Your task to perform on an android device: Search for pizza restaurants on Maps Image 0: 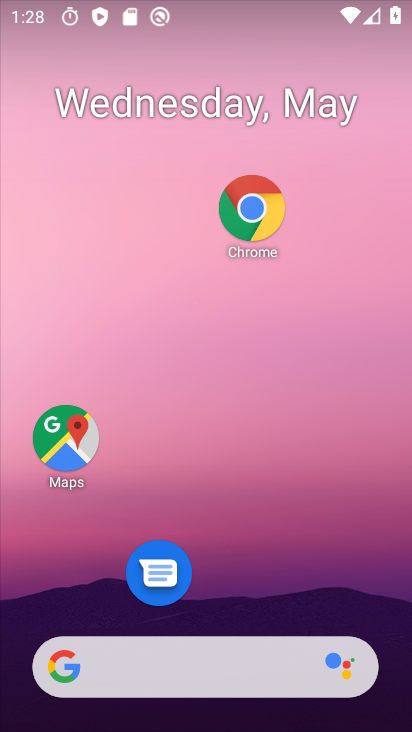
Step 0: click (72, 449)
Your task to perform on an android device: Search for pizza restaurants on Maps Image 1: 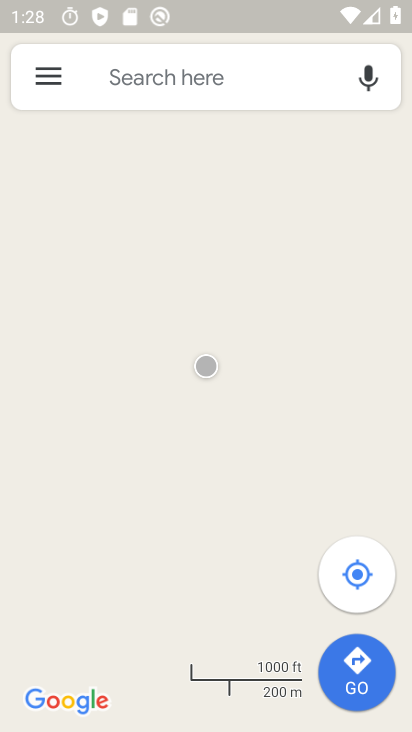
Step 1: click (225, 89)
Your task to perform on an android device: Search for pizza restaurants on Maps Image 2: 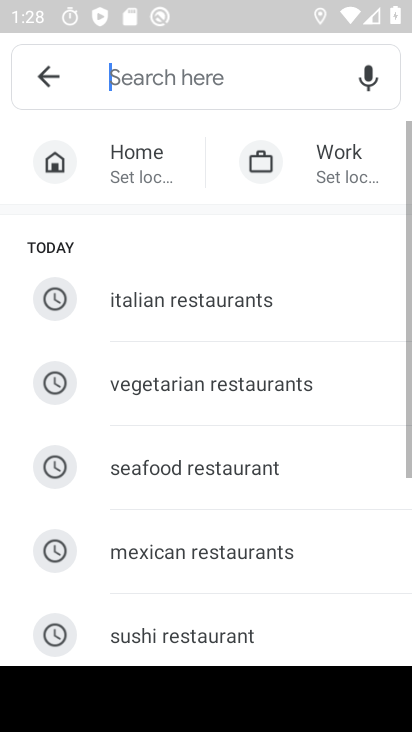
Step 2: type "pizza restaurant"
Your task to perform on an android device: Search for pizza restaurants on Maps Image 3: 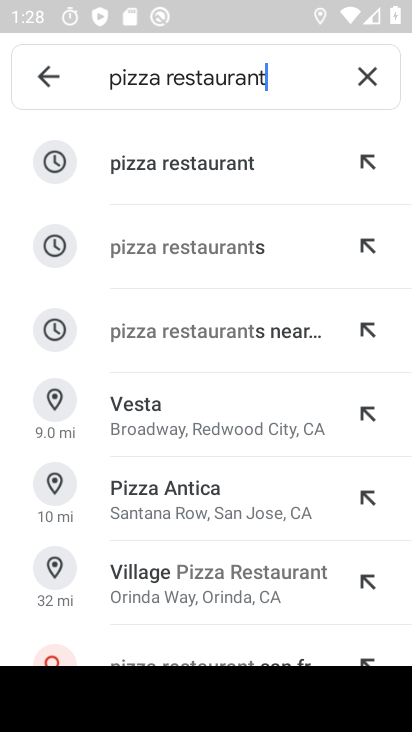
Step 3: click (51, 167)
Your task to perform on an android device: Search for pizza restaurants on Maps Image 4: 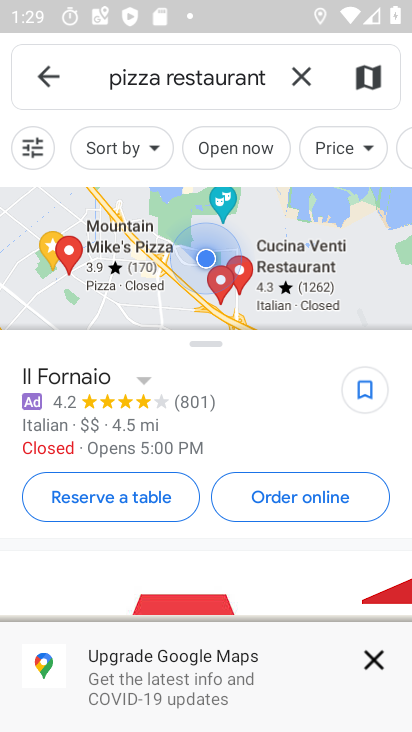
Step 4: task complete